Your task to perform on an android device: Turn off the flashlight Image 0: 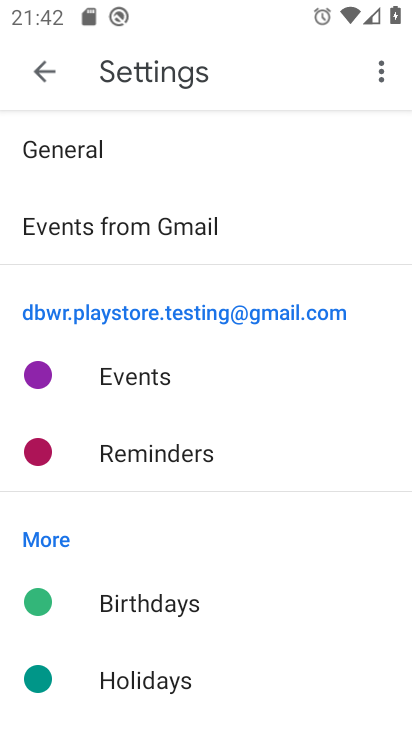
Step 0: press home button
Your task to perform on an android device: Turn off the flashlight Image 1: 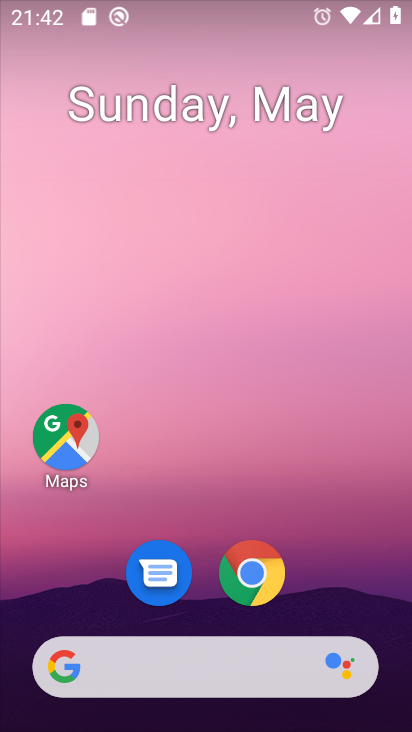
Step 1: drag from (248, 499) to (292, 0)
Your task to perform on an android device: Turn off the flashlight Image 2: 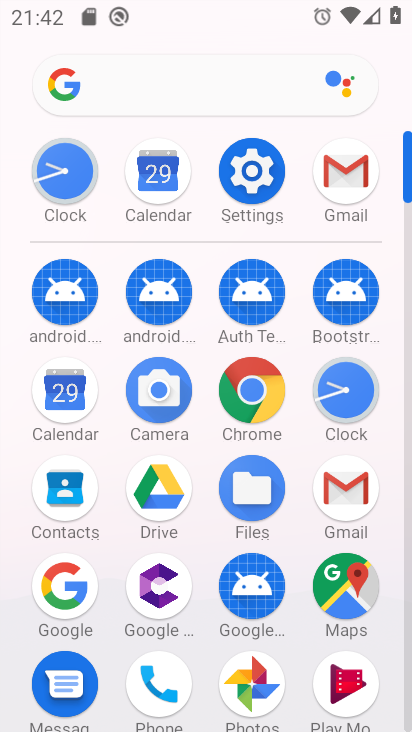
Step 2: click (261, 176)
Your task to perform on an android device: Turn off the flashlight Image 3: 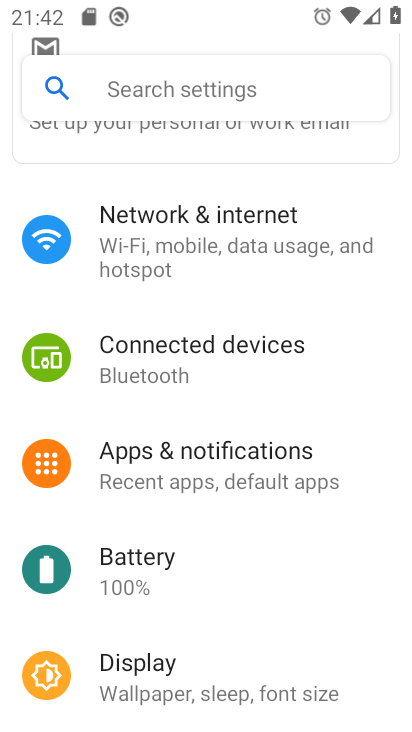
Step 3: click (254, 87)
Your task to perform on an android device: Turn off the flashlight Image 4: 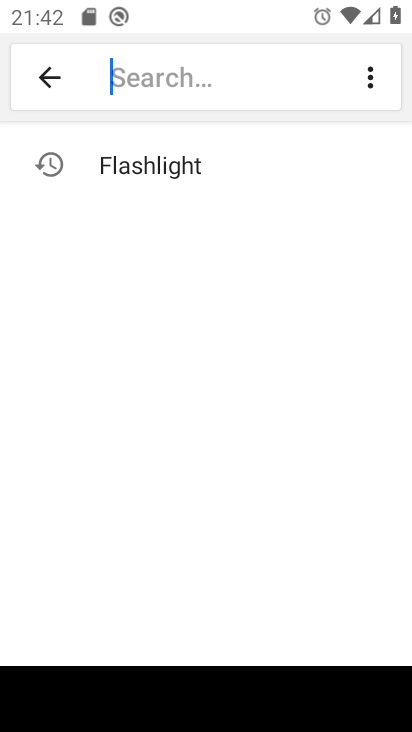
Step 4: click (176, 170)
Your task to perform on an android device: Turn off the flashlight Image 5: 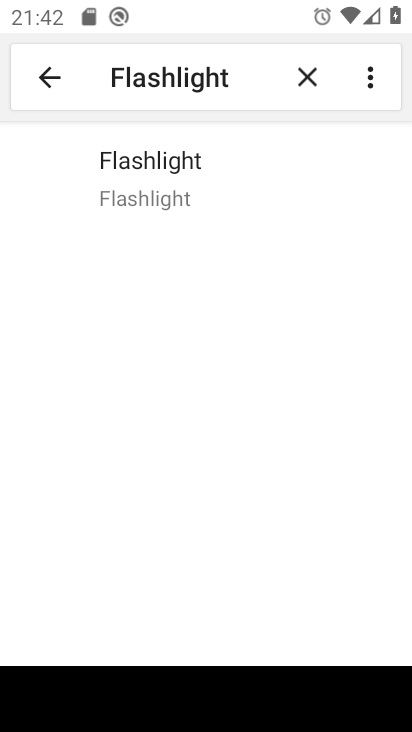
Step 5: click (169, 170)
Your task to perform on an android device: Turn off the flashlight Image 6: 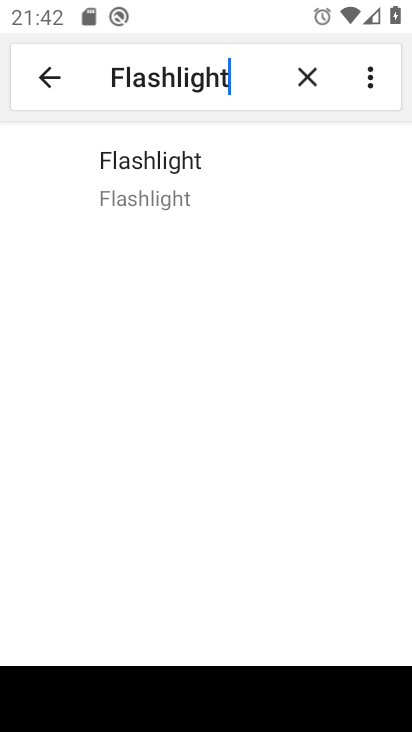
Step 6: task complete